Your task to perform on an android device: change the upload size in google photos Image 0: 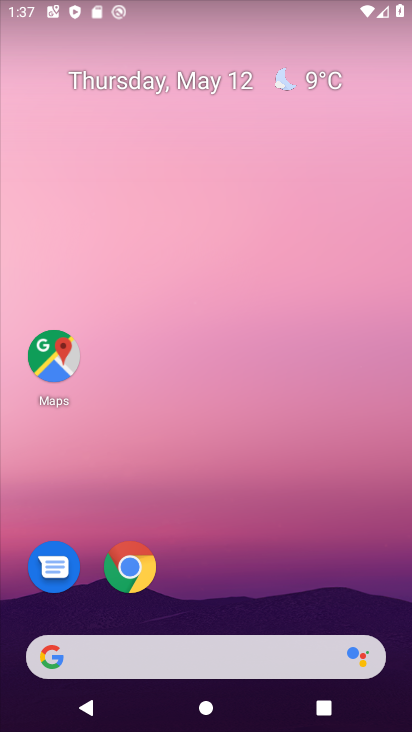
Step 0: drag from (224, 607) to (288, 71)
Your task to perform on an android device: change the upload size in google photos Image 1: 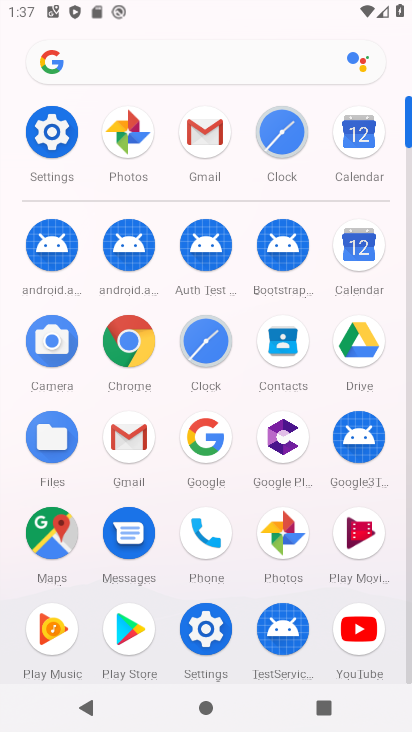
Step 1: click (286, 523)
Your task to perform on an android device: change the upload size in google photos Image 2: 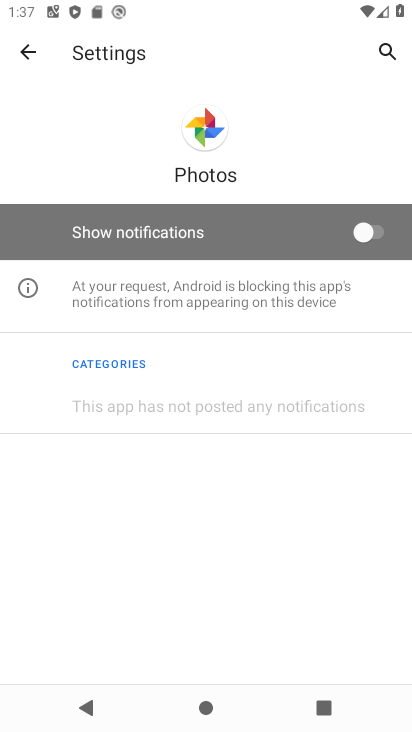
Step 2: press home button
Your task to perform on an android device: change the upload size in google photos Image 3: 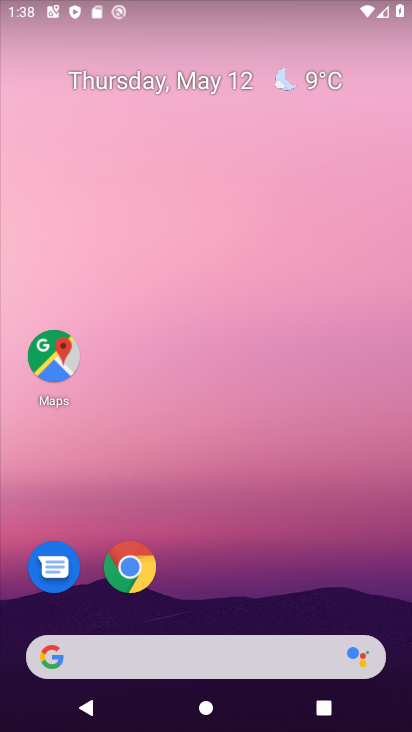
Step 3: drag from (223, 592) to (258, 59)
Your task to perform on an android device: change the upload size in google photos Image 4: 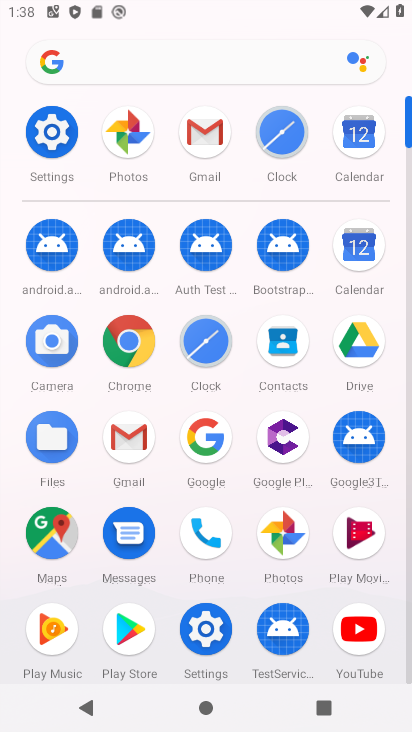
Step 4: click (281, 526)
Your task to perform on an android device: change the upload size in google photos Image 5: 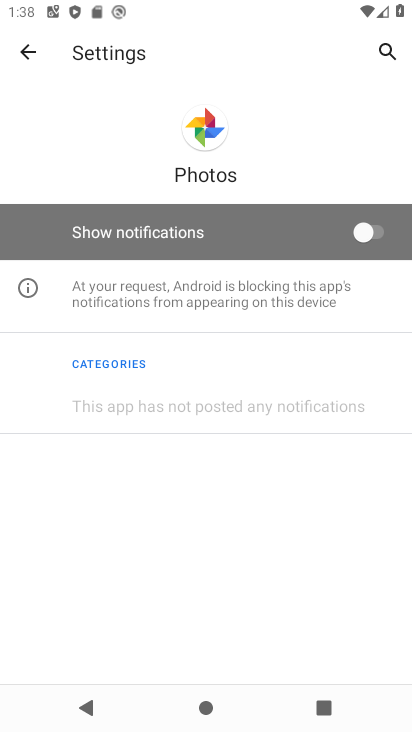
Step 5: click (27, 56)
Your task to perform on an android device: change the upload size in google photos Image 6: 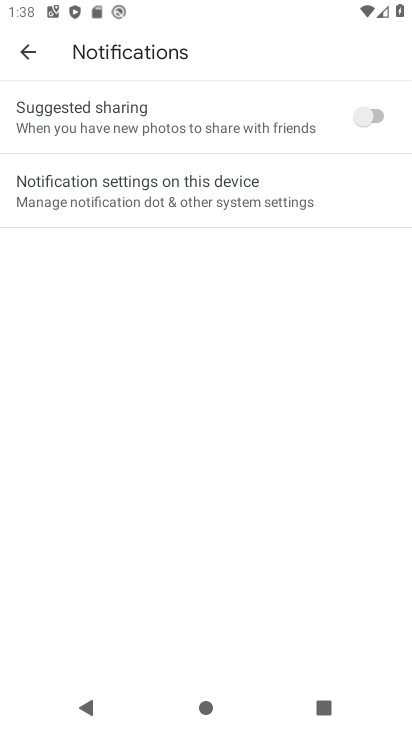
Step 6: click (27, 51)
Your task to perform on an android device: change the upload size in google photos Image 7: 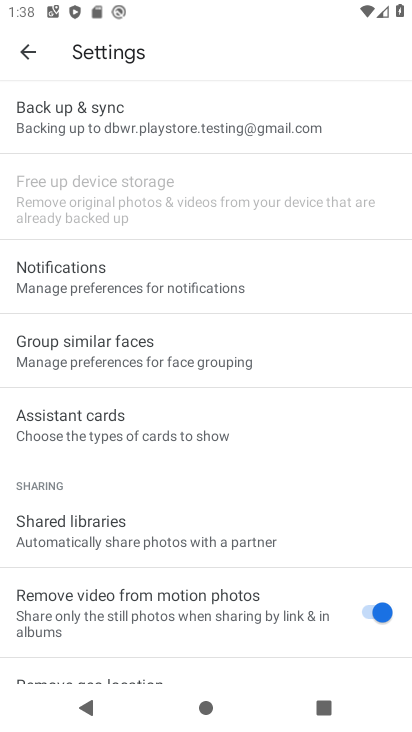
Step 7: click (110, 125)
Your task to perform on an android device: change the upload size in google photos Image 8: 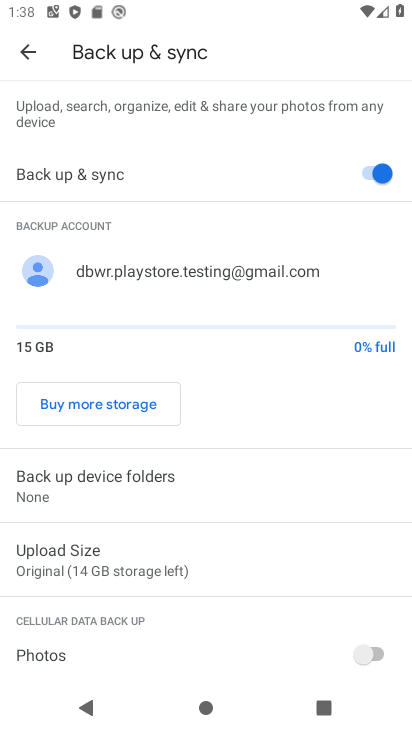
Step 8: click (137, 559)
Your task to perform on an android device: change the upload size in google photos Image 9: 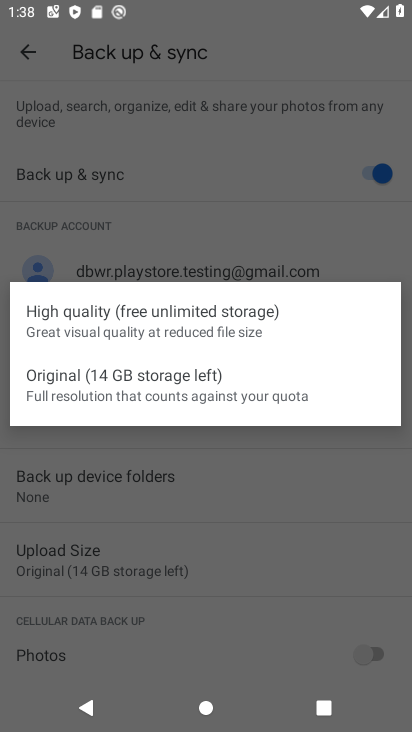
Step 9: click (93, 314)
Your task to perform on an android device: change the upload size in google photos Image 10: 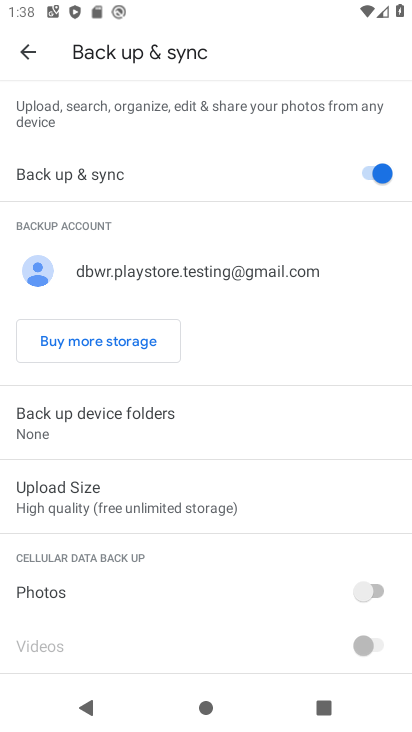
Step 10: task complete